Your task to perform on an android device: Open Youtube and go to "Your channel" Image 0: 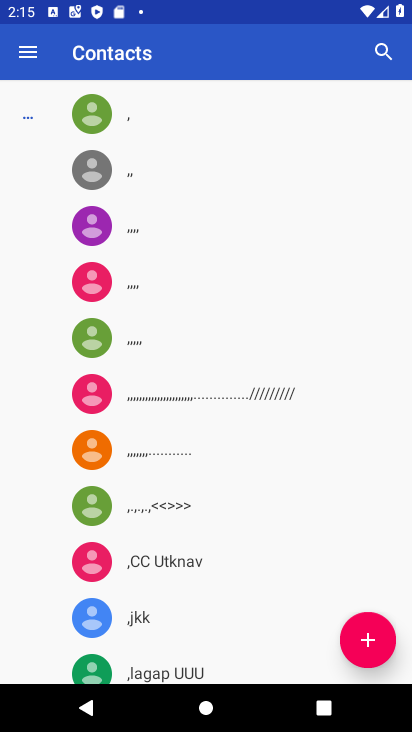
Step 0: press home button
Your task to perform on an android device: Open Youtube and go to "Your channel" Image 1: 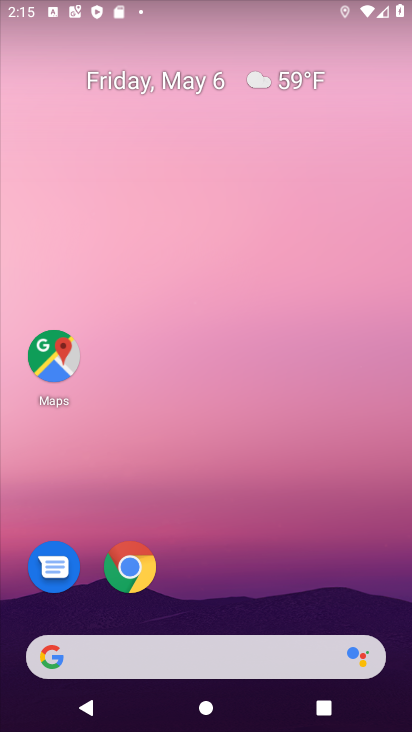
Step 1: drag from (395, 645) to (333, 65)
Your task to perform on an android device: Open Youtube and go to "Your channel" Image 2: 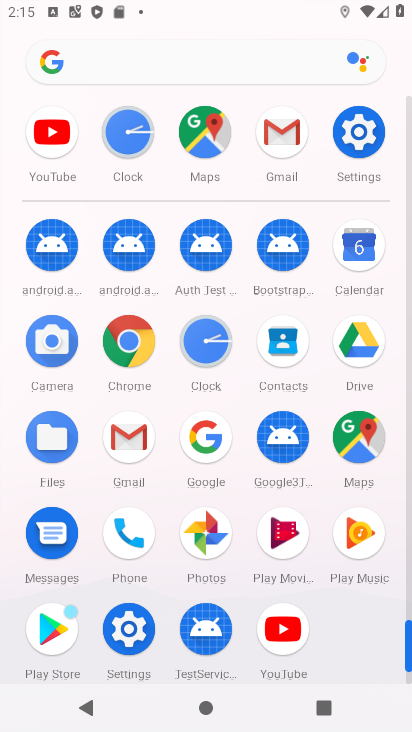
Step 2: click (281, 628)
Your task to perform on an android device: Open Youtube and go to "Your channel" Image 3: 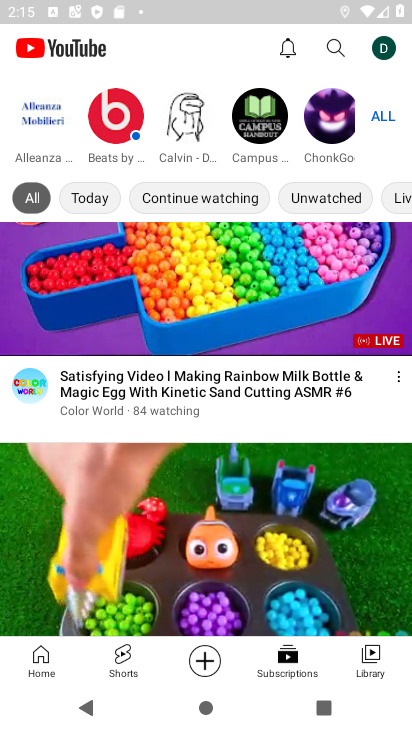
Step 3: click (384, 47)
Your task to perform on an android device: Open Youtube and go to "Your channel" Image 4: 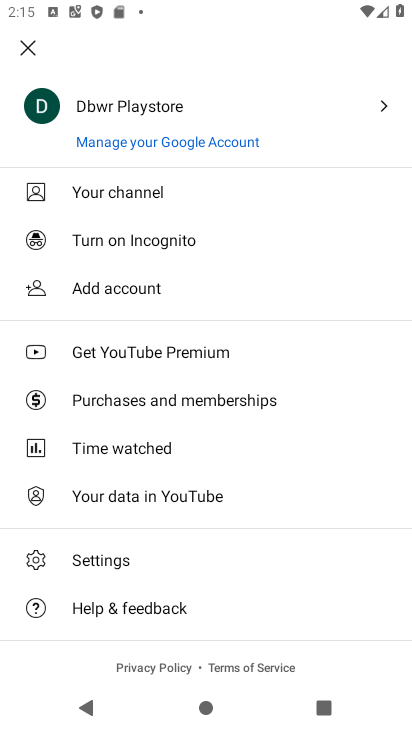
Step 4: click (98, 182)
Your task to perform on an android device: Open Youtube and go to "Your channel" Image 5: 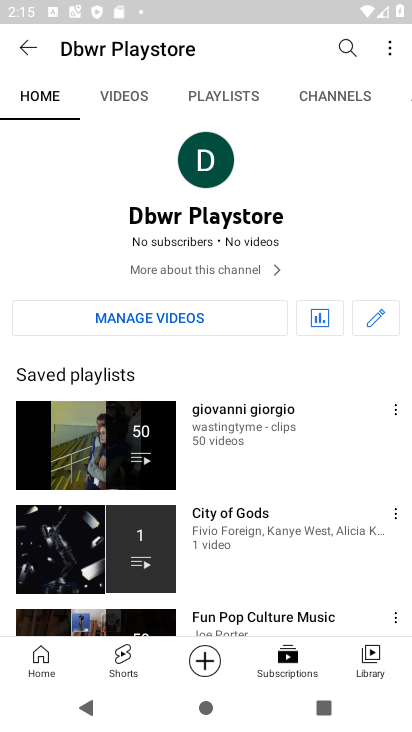
Step 5: task complete